Your task to perform on an android device: turn on improve location accuracy Image 0: 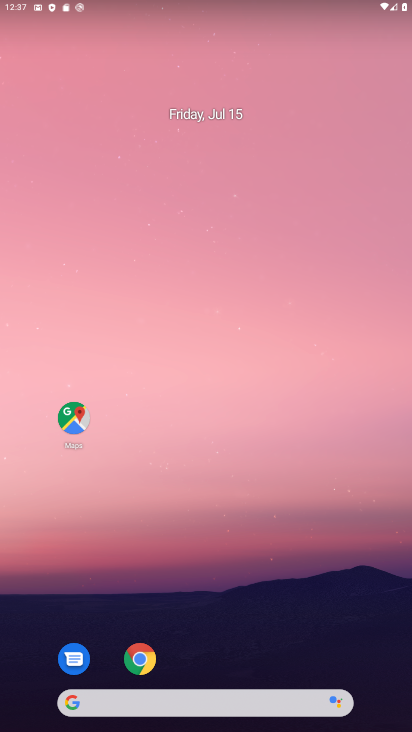
Step 0: drag from (217, 730) to (223, 82)
Your task to perform on an android device: turn on improve location accuracy Image 1: 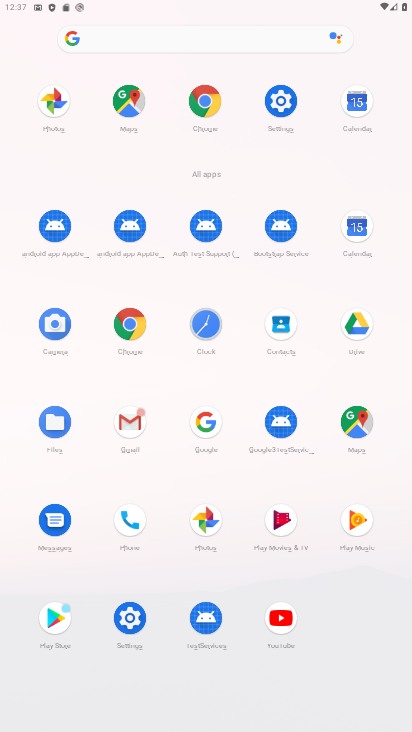
Step 1: click (280, 97)
Your task to perform on an android device: turn on improve location accuracy Image 2: 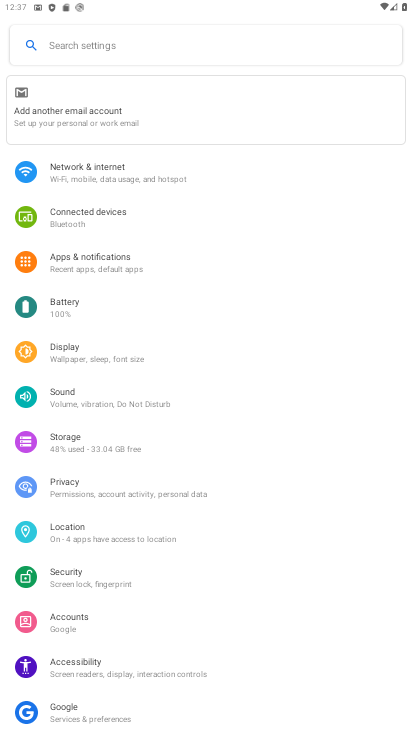
Step 2: click (67, 528)
Your task to perform on an android device: turn on improve location accuracy Image 3: 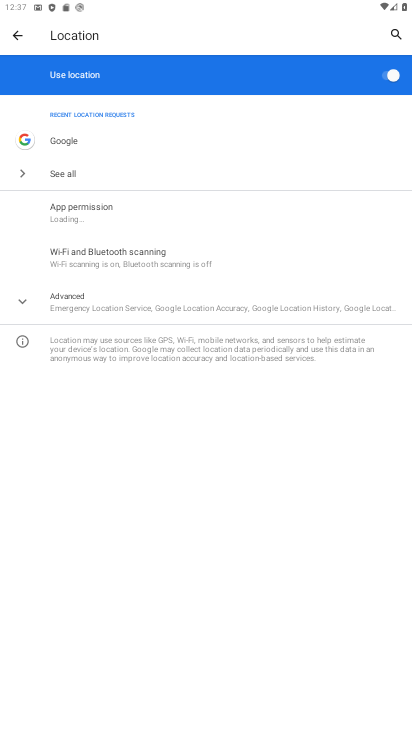
Step 3: click (70, 299)
Your task to perform on an android device: turn on improve location accuracy Image 4: 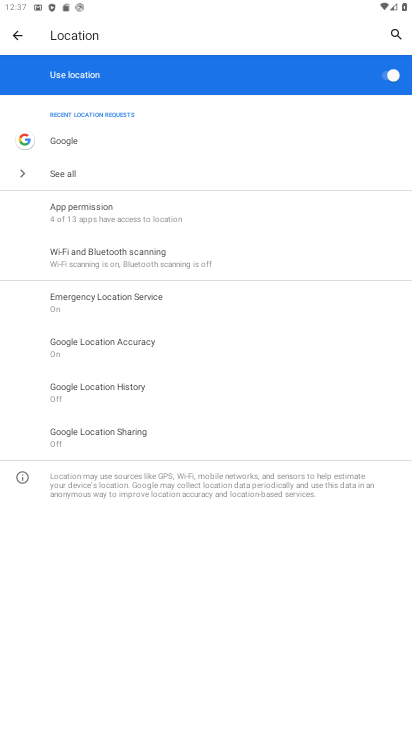
Step 4: click (87, 340)
Your task to perform on an android device: turn on improve location accuracy Image 5: 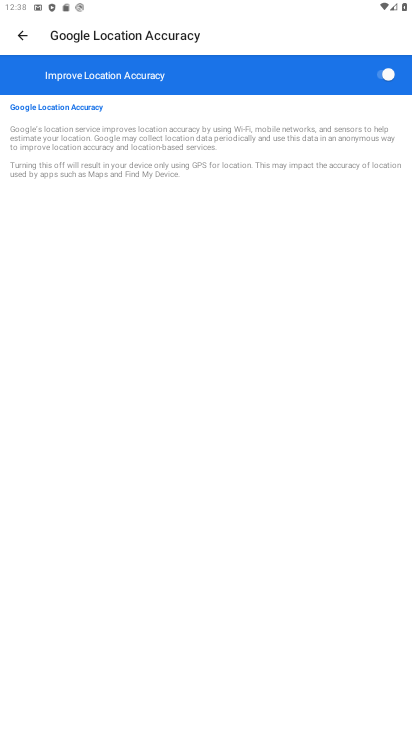
Step 5: task complete